Your task to perform on an android device: check android version Image 0: 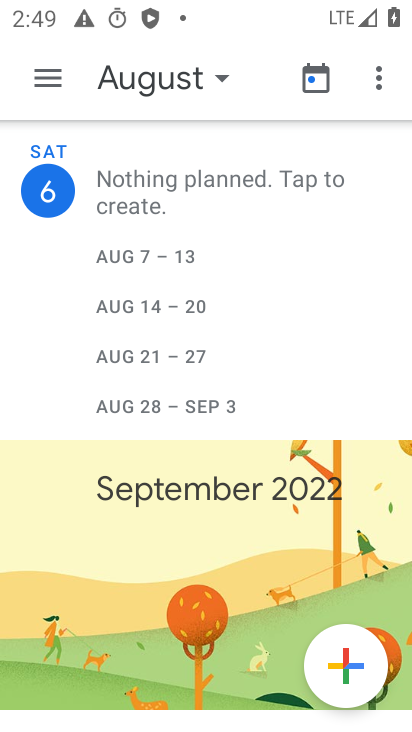
Step 0: press home button
Your task to perform on an android device: check android version Image 1: 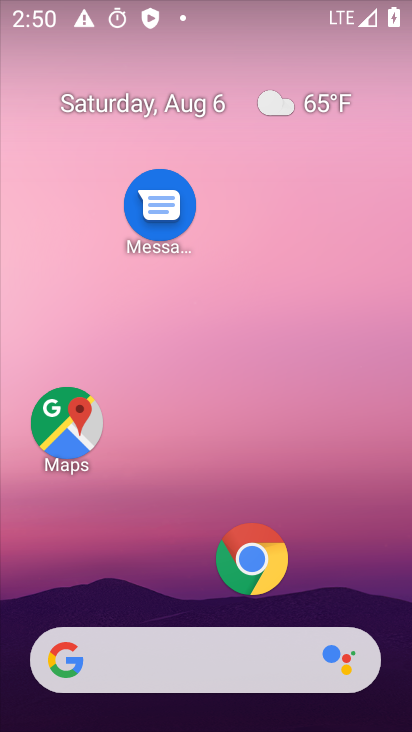
Step 1: drag from (179, 565) to (173, 51)
Your task to perform on an android device: check android version Image 2: 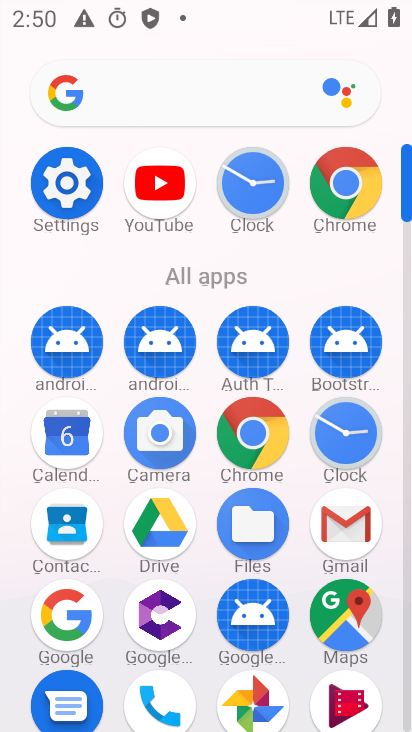
Step 2: click (63, 186)
Your task to perform on an android device: check android version Image 3: 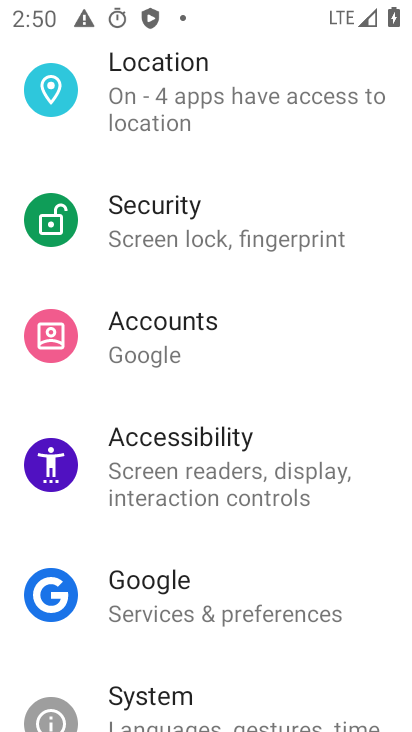
Step 3: drag from (189, 647) to (155, 249)
Your task to perform on an android device: check android version Image 4: 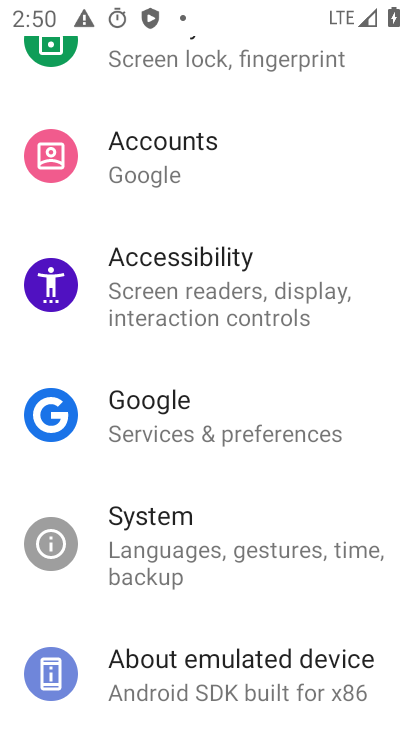
Step 4: click (171, 701)
Your task to perform on an android device: check android version Image 5: 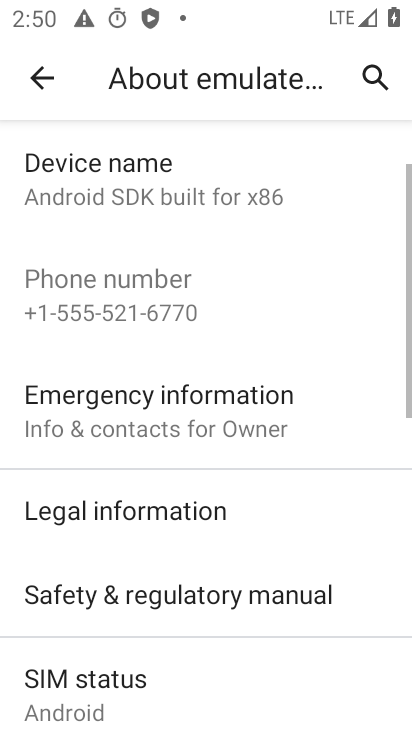
Step 5: task complete